Your task to perform on an android device: Open Android settings Image 0: 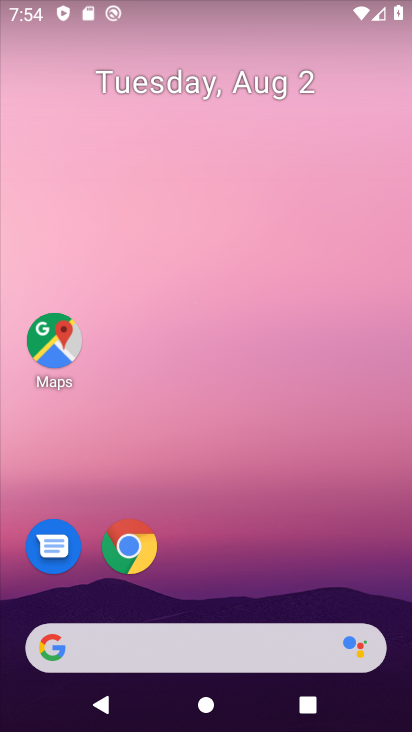
Step 0: drag from (227, 580) to (212, 203)
Your task to perform on an android device: Open Android settings Image 1: 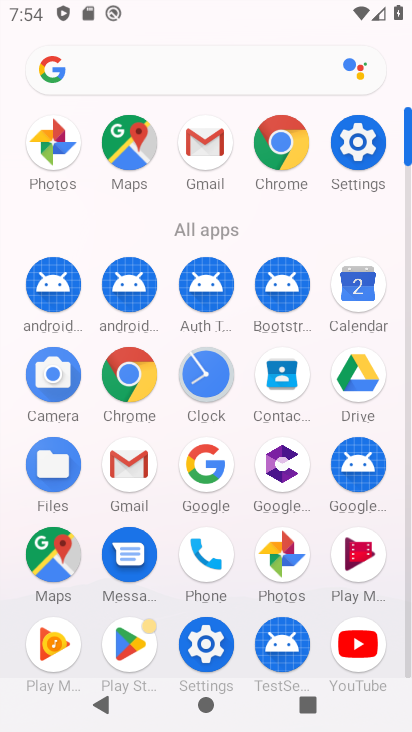
Step 1: click (361, 153)
Your task to perform on an android device: Open Android settings Image 2: 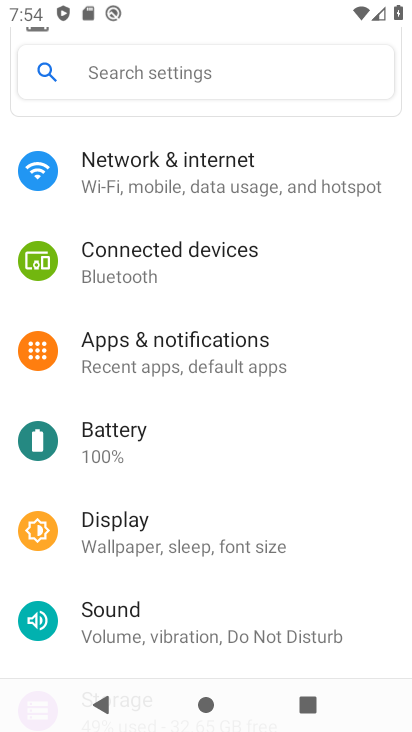
Step 2: drag from (169, 496) to (205, 26)
Your task to perform on an android device: Open Android settings Image 3: 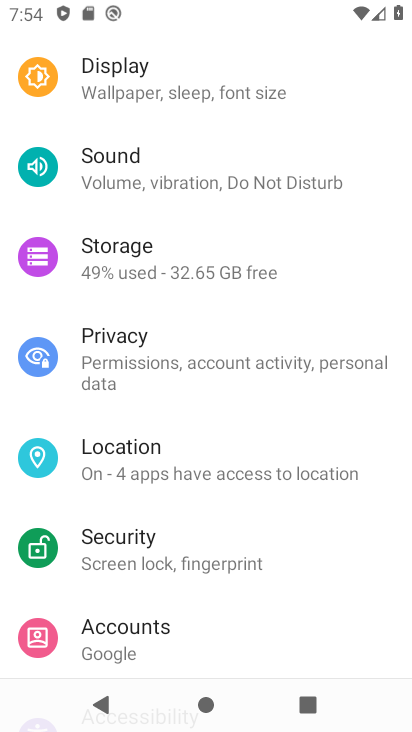
Step 3: drag from (174, 566) to (191, 6)
Your task to perform on an android device: Open Android settings Image 4: 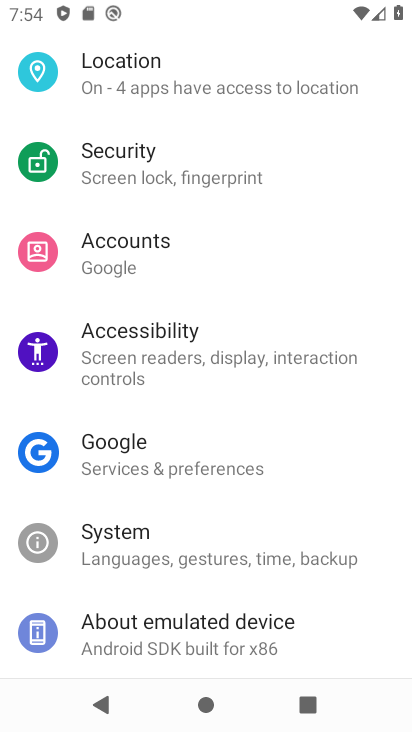
Step 4: click (191, 655)
Your task to perform on an android device: Open Android settings Image 5: 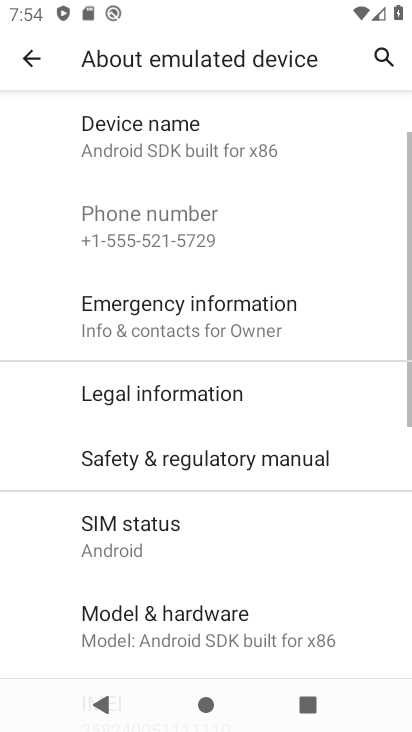
Step 5: drag from (118, 704) to (15, 196)
Your task to perform on an android device: Open Android settings Image 6: 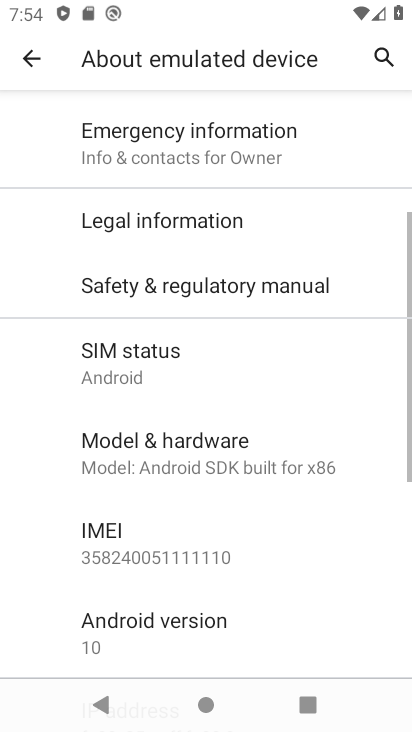
Step 6: click (151, 620)
Your task to perform on an android device: Open Android settings Image 7: 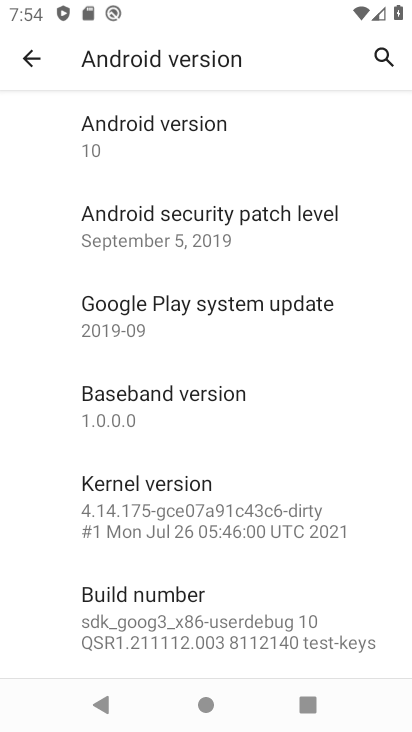
Step 7: task complete